Your task to perform on an android device: toggle notification dots Image 0: 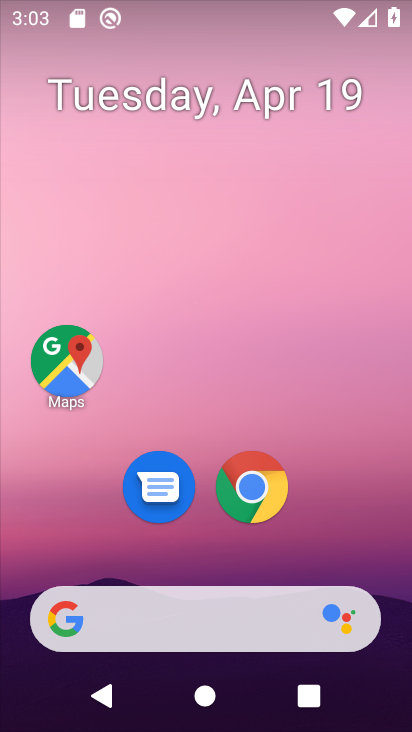
Step 0: drag from (203, 563) to (238, 99)
Your task to perform on an android device: toggle notification dots Image 1: 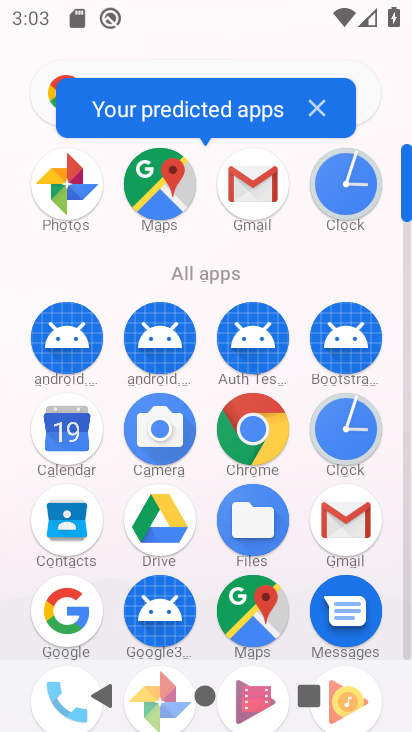
Step 1: drag from (195, 568) to (220, 265)
Your task to perform on an android device: toggle notification dots Image 2: 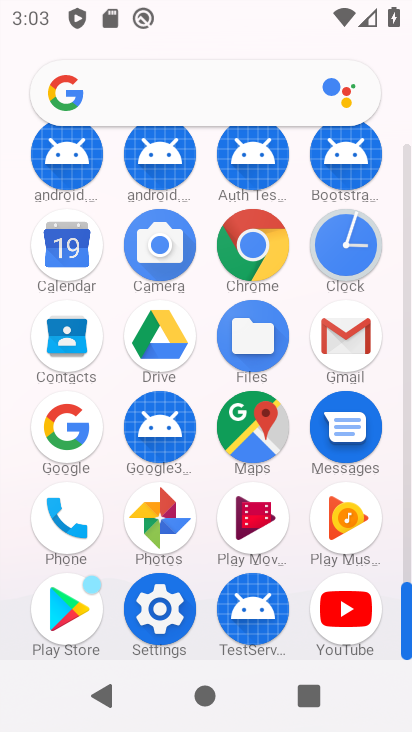
Step 2: click (162, 610)
Your task to perform on an android device: toggle notification dots Image 3: 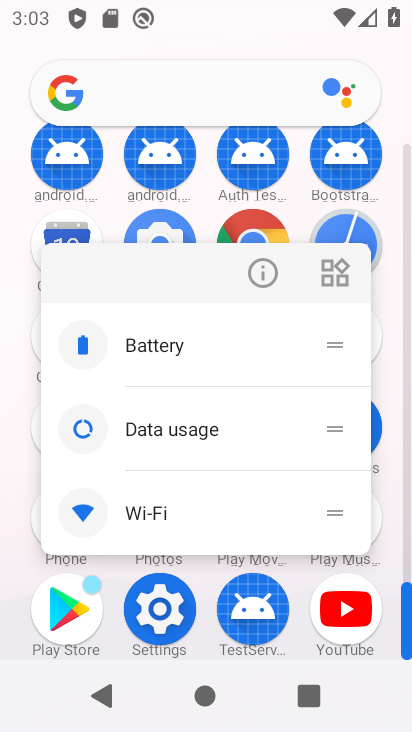
Step 3: click (162, 610)
Your task to perform on an android device: toggle notification dots Image 4: 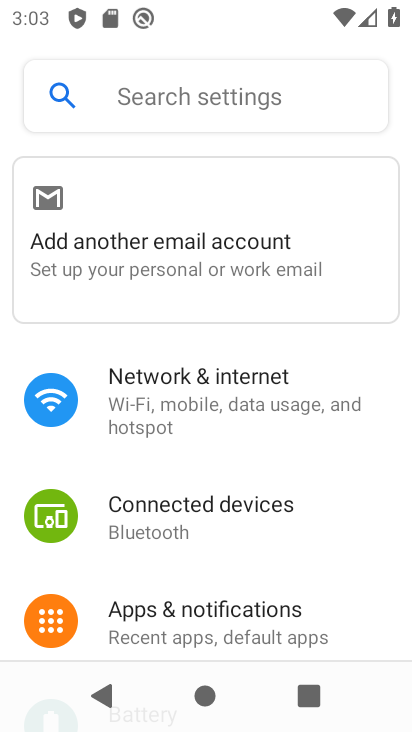
Step 4: click (214, 610)
Your task to perform on an android device: toggle notification dots Image 5: 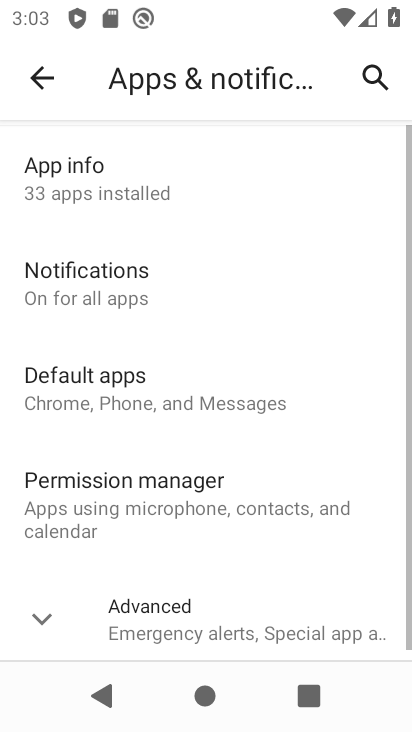
Step 5: click (73, 242)
Your task to perform on an android device: toggle notification dots Image 6: 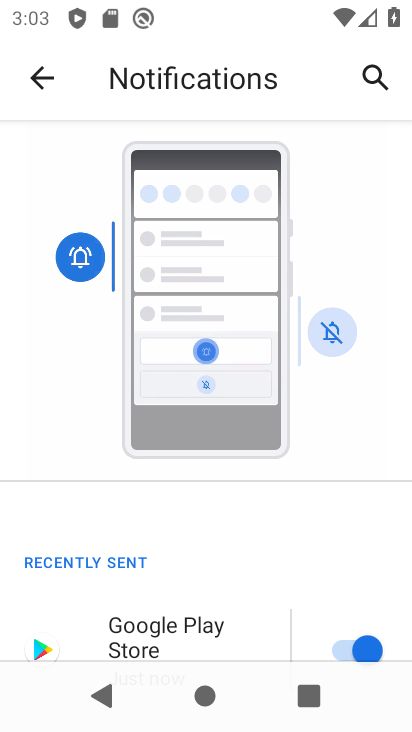
Step 6: drag from (243, 619) to (216, 465)
Your task to perform on an android device: toggle notification dots Image 7: 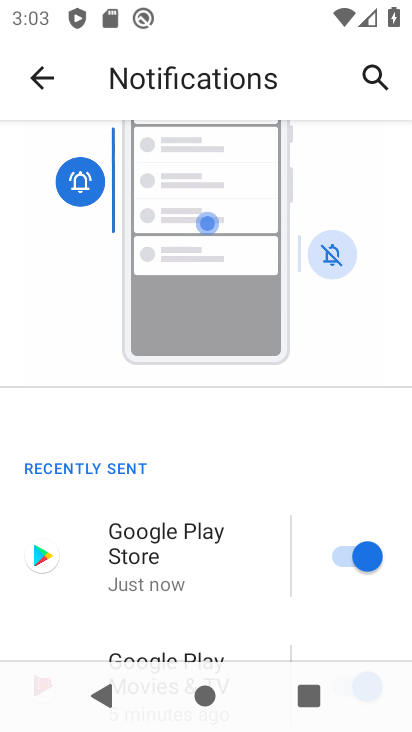
Step 7: drag from (228, 618) to (229, 427)
Your task to perform on an android device: toggle notification dots Image 8: 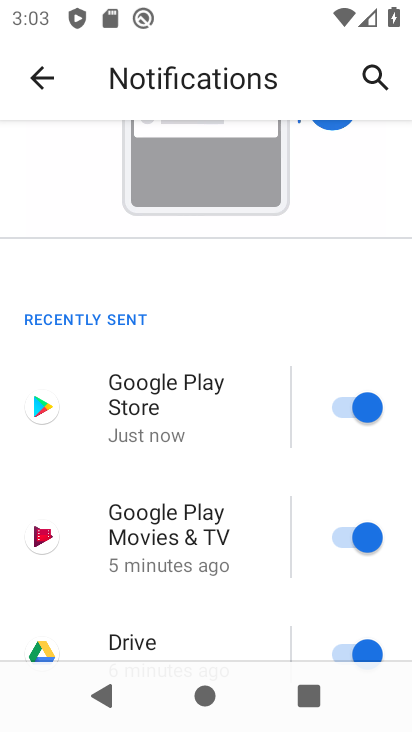
Step 8: drag from (189, 598) to (221, 444)
Your task to perform on an android device: toggle notification dots Image 9: 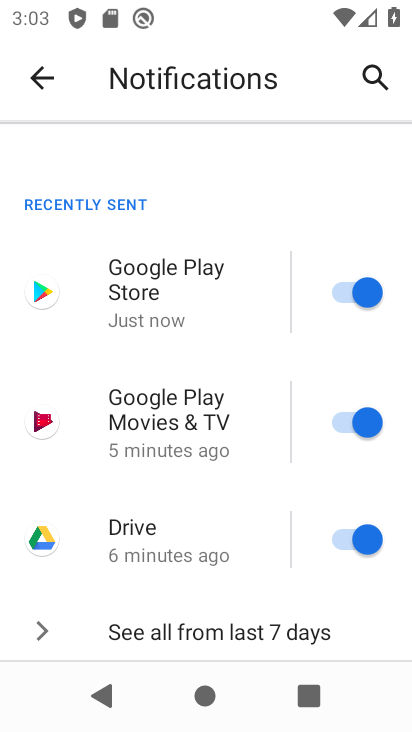
Step 9: drag from (212, 545) to (218, 428)
Your task to perform on an android device: toggle notification dots Image 10: 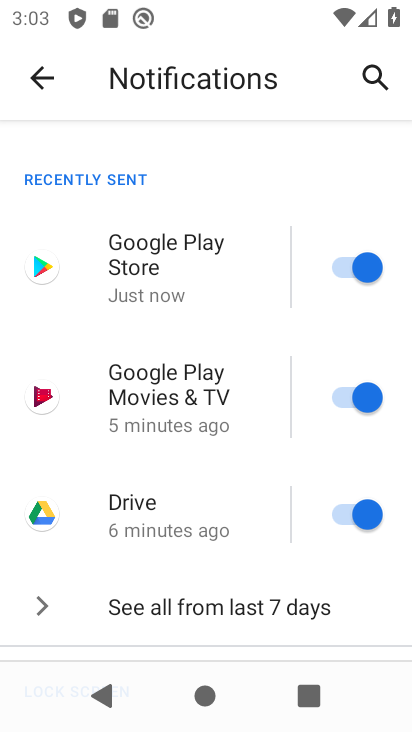
Step 10: drag from (208, 613) to (213, 453)
Your task to perform on an android device: toggle notification dots Image 11: 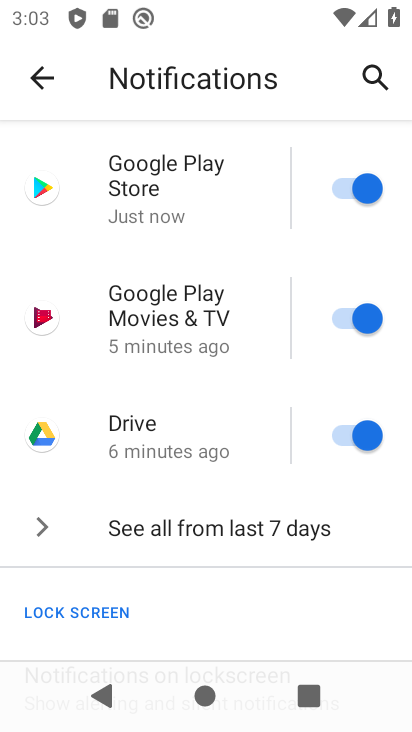
Step 11: drag from (199, 618) to (223, 478)
Your task to perform on an android device: toggle notification dots Image 12: 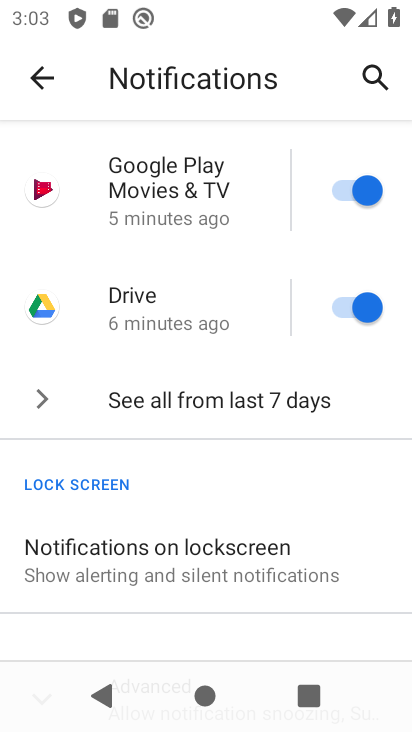
Step 12: drag from (206, 581) to (256, 466)
Your task to perform on an android device: toggle notification dots Image 13: 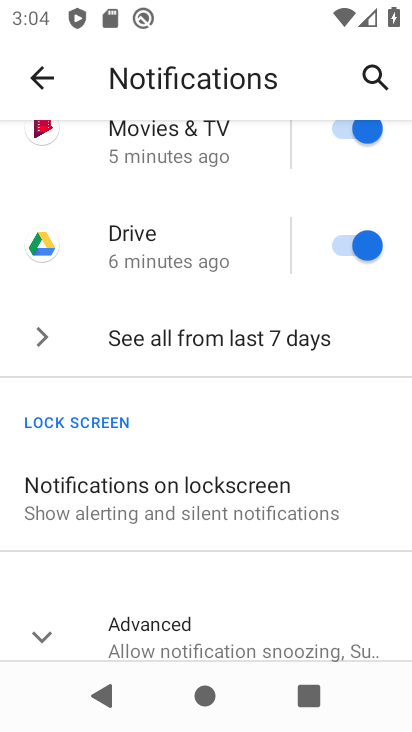
Step 13: drag from (226, 614) to (292, 492)
Your task to perform on an android device: toggle notification dots Image 14: 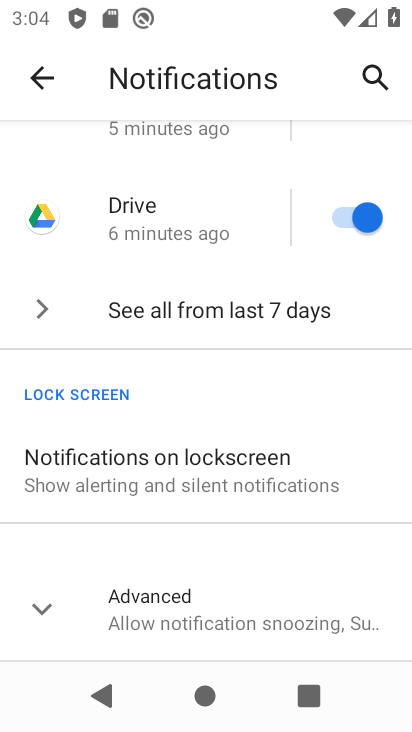
Step 14: click (185, 593)
Your task to perform on an android device: toggle notification dots Image 15: 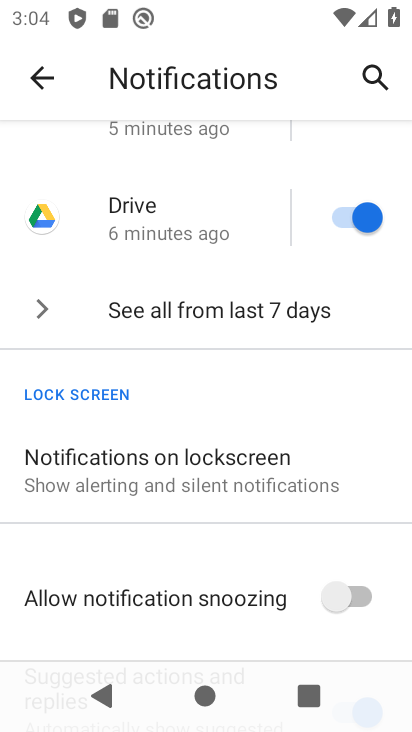
Step 15: drag from (224, 627) to (265, 495)
Your task to perform on an android device: toggle notification dots Image 16: 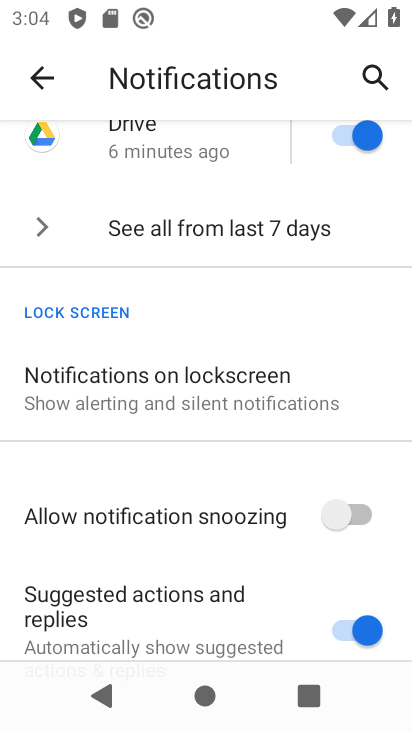
Step 16: drag from (232, 594) to (252, 446)
Your task to perform on an android device: toggle notification dots Image 17: 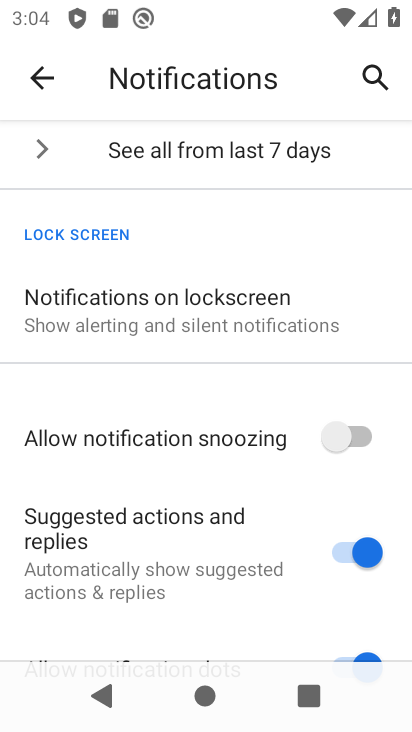
Step 17: drag from (225, 592) to (256, 428)
Your task to perform on an android device: toggle notification dots Image 18: 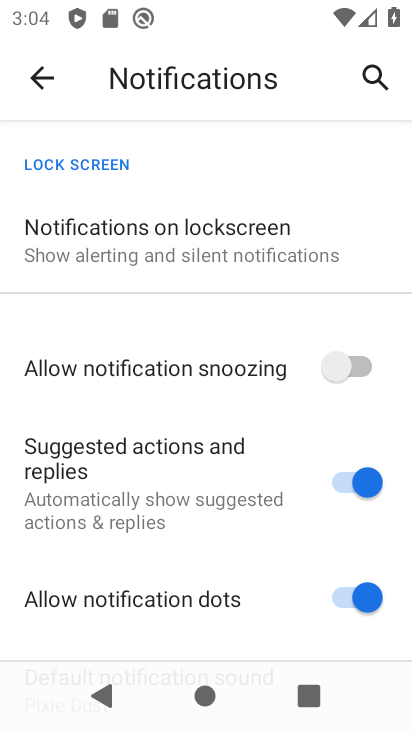
Step 18: click (366, 604)
Your task to perform on an android device: toggle notification dots Image 19: 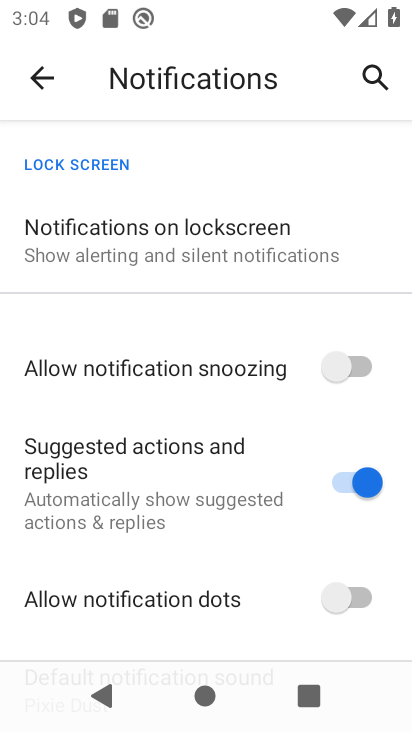
Step 19: task complete